Your task to perform on an android device: Go to network settings Image 0: 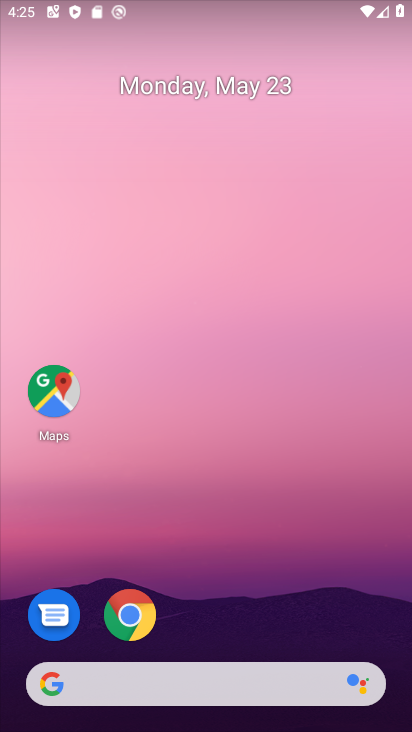
Step 0: drag from (274, 610) to (262, 20)
Your task to perform on an android device: Go to network settings Image 1: 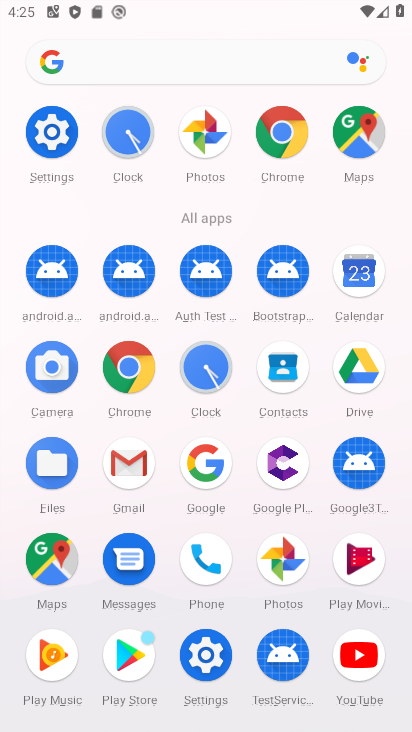
Step 1: click (48, 134)
Your task to perform on an android device: Go to network settings Image 2: 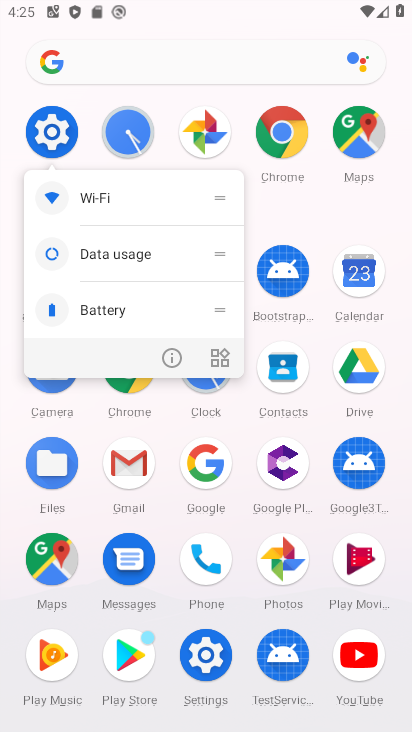
Step 2: click (45, 118)
Your task to perform on an android device: Go to network settings Image 3: 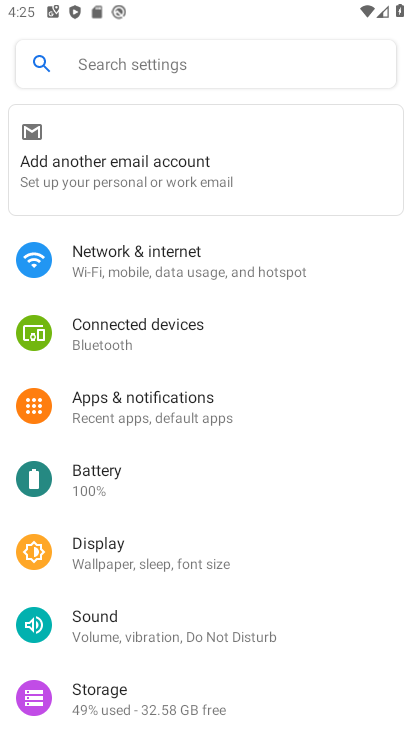
Step 3: click (174, 266)
Your task to perform on an android device: Go to network settings Image 4: 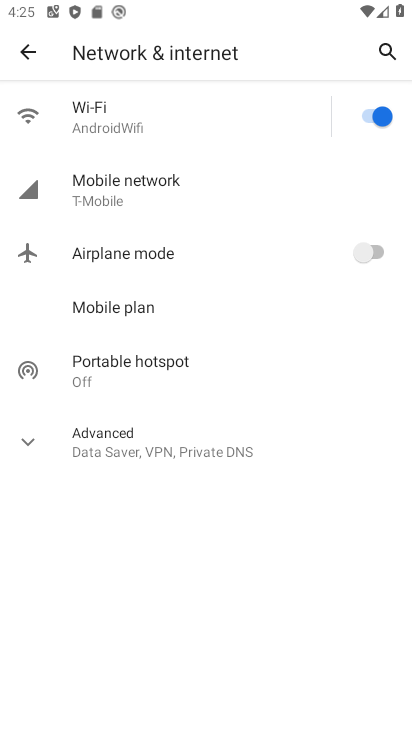
Step 4: task complete